Your task to perform on an android device: Who is the prime minister of the United Kingdom? Image 0: 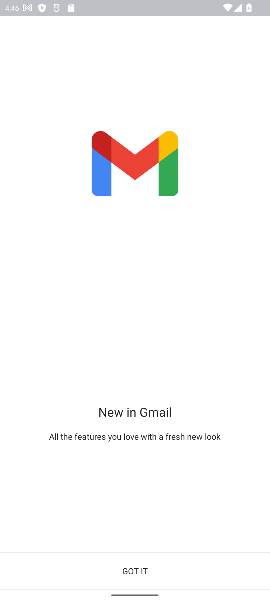
Step 0: press home button
Your task to perform on an android device: Who is the prime minister of the United Kingdom? Image 1: 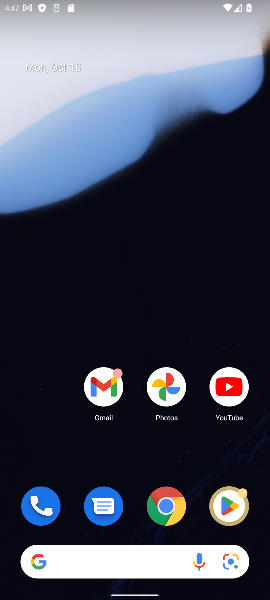
Step 1: click (150, 540)
Your task to perform on an android device: Who is the prime minister of the United Kingdom? Image 2: 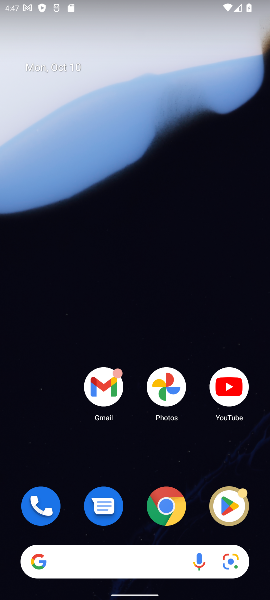
Step 2: drag from (145, 553) to (180, 115)
Your task to perform on an android device: Who is the prime minister of the United Kingdom? Image 3: 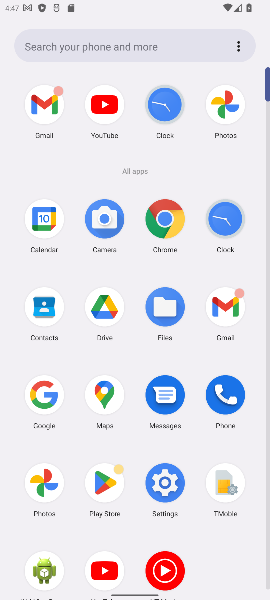
Step 3: click (38, 396)
Your task to perform on an android device: Who is the prime minister of the United Kingdom? Image 4: 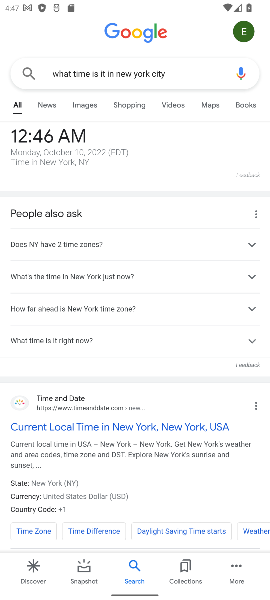
Step 4: click (92, 79)
Your task to perform on an android device: Who is the prime minister of the United Kingdom? Image 5: 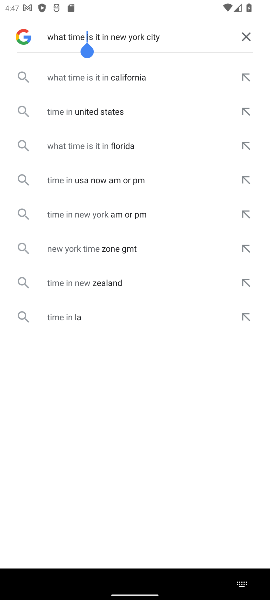
Step 5: click (238, 36)
Your task to perform on an android device: Who is the prime minister of the United Kingdom? Image 6: 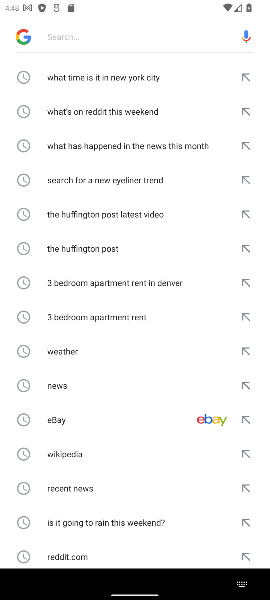
Step 6: type "Who is the prime minister of the United Kingdom?"
Your task to perform on an android device: Who is the prime minister of the United Kingdom? Image 7: 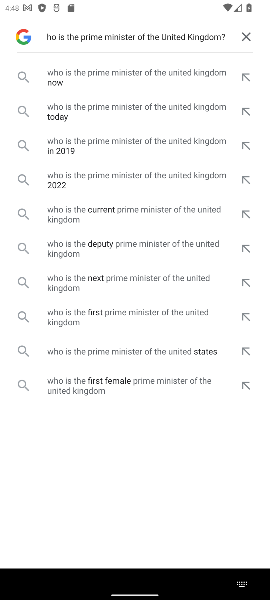
Step 7: click (103, 75)
Your task to perform on an android device: Who is the prime minister of the United Kingdom? Image 8: 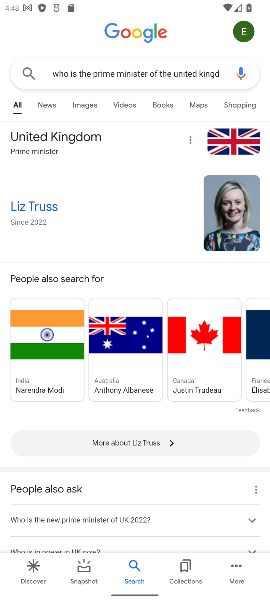
Step 8: task complete